Your task to perform on an android device: Go to Yahoo.com Image 0: 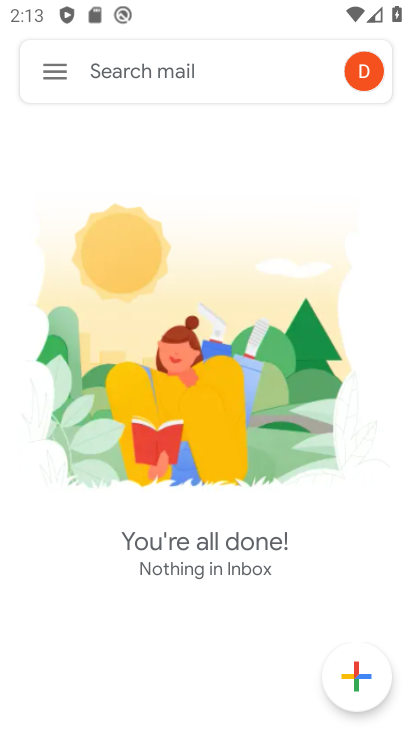
Step 0: press home button
Your task to perform on an android device: Go to Yahoo.com Image 1: 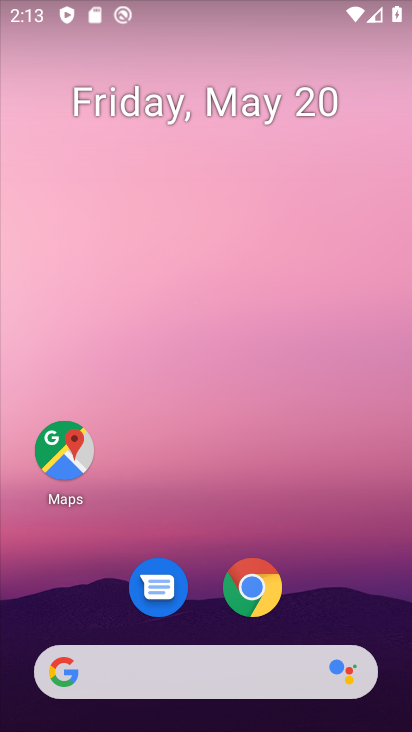
Step 1: drag from (372, 610) to (357, 138)
Your task to perform on an android device: Go to Yahoo.com Image 2: 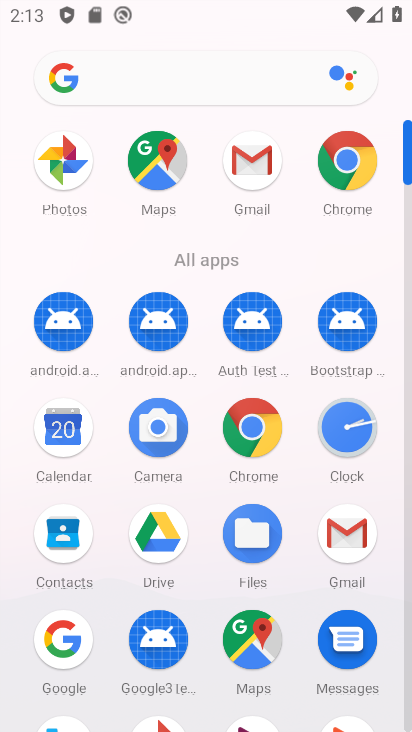
Step 2: click (258, 445)
Your task to perform on an android device: Go to Yahoo.com Image 3: 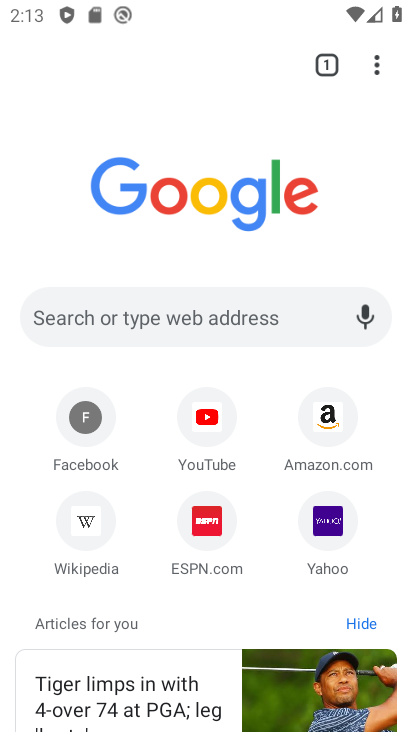
Step 3: click (321, 532)
Your task to perform on an android device: Go to Yahoo.com Image 4: 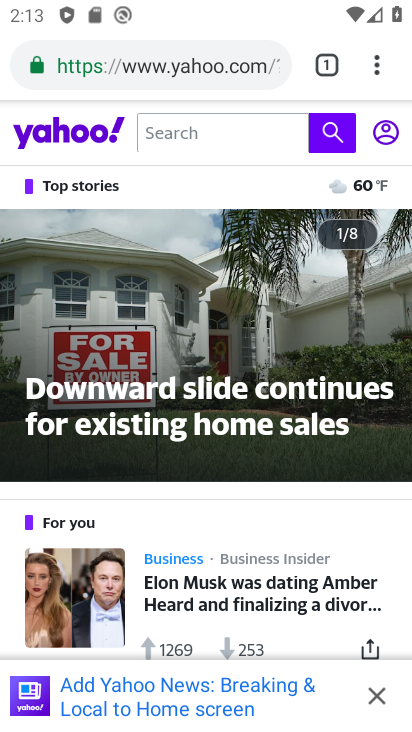
Step 4: task complete